Your task to perform on an android device: open app "Pandora - Music & Podcasts" (install if not already installed) and go to login screen Image 0: 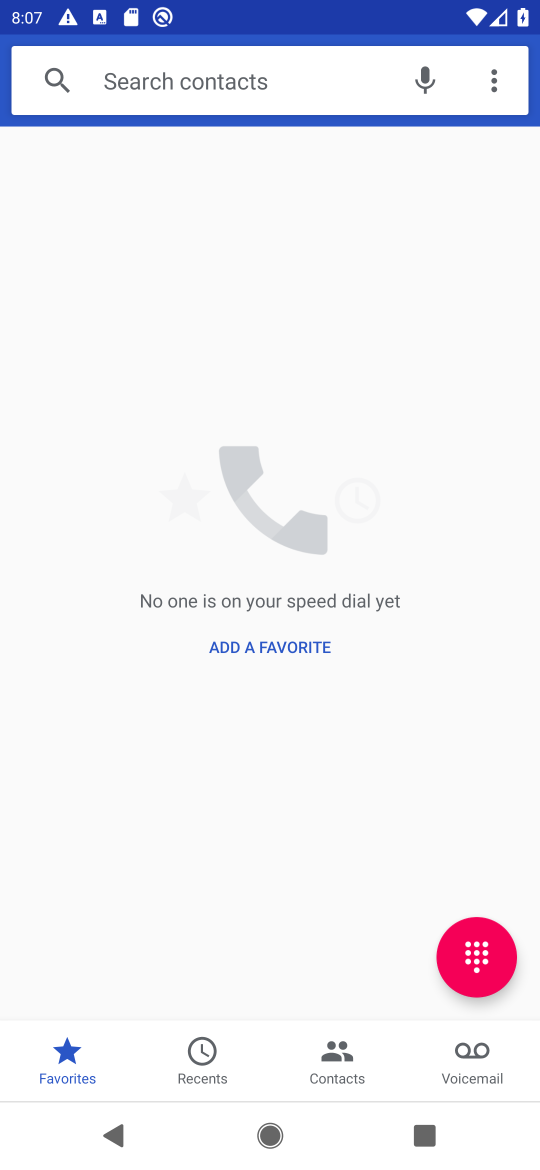
Step 0: press home button
Your task to perform on an android device: open app "Pandora - Music & Podcasts" (install if not already installed) and go to login screen Image 1: 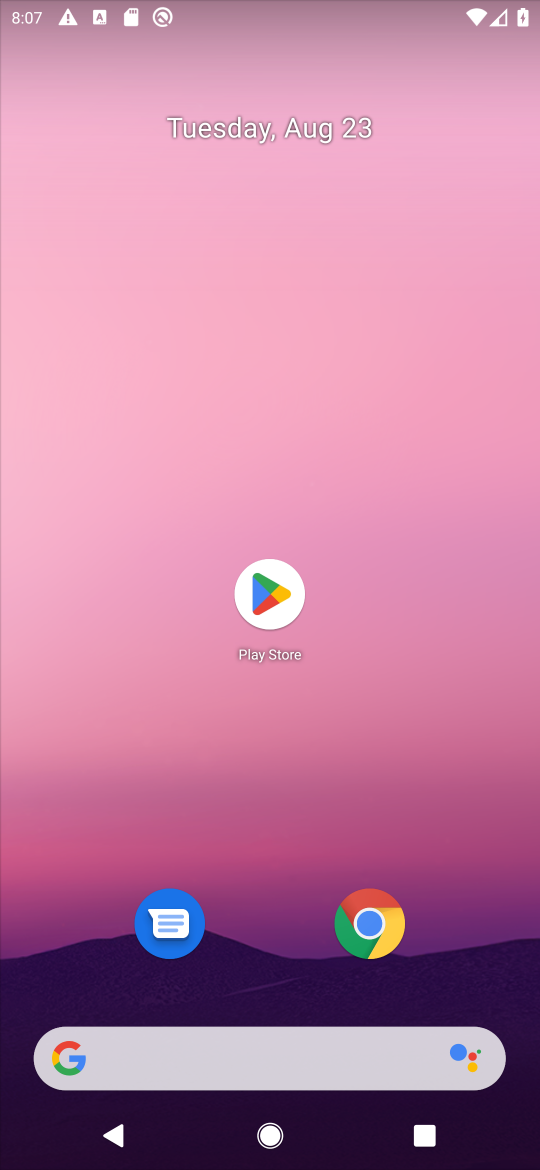
Step 1: click (271, 599)
Your task to perform on an android device: open app "Pandora - Music & Podcasts" (install if not already installed) and go to login screen Image 2: 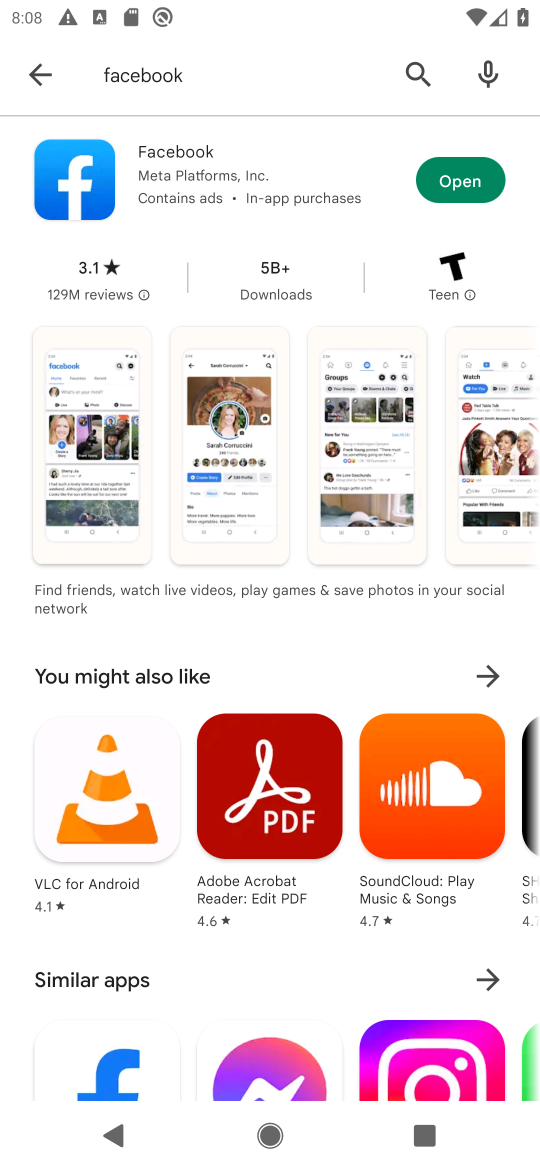
Step 2: click (409, 50)
Your task to perform on an android device: open app "Pandora - Music & Podcasts" (install if not already installed) and go to login screen Image 3: 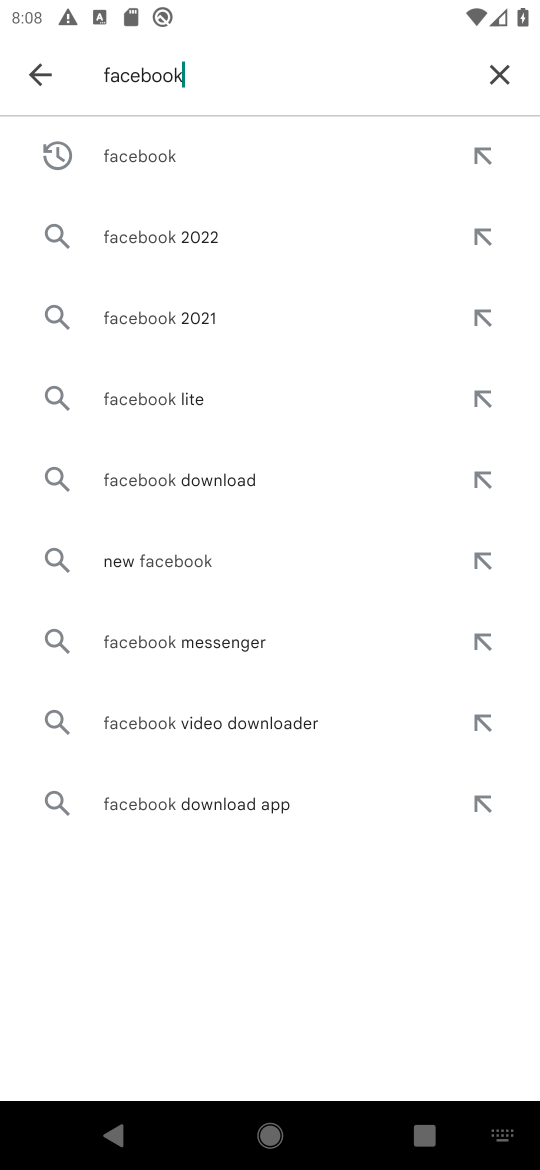
Step 3: click (502, 67)
Your task to perform on an android device: open app "Pandora - Music & Podcasts" (install if not already installed) and go to login screen Image 4: 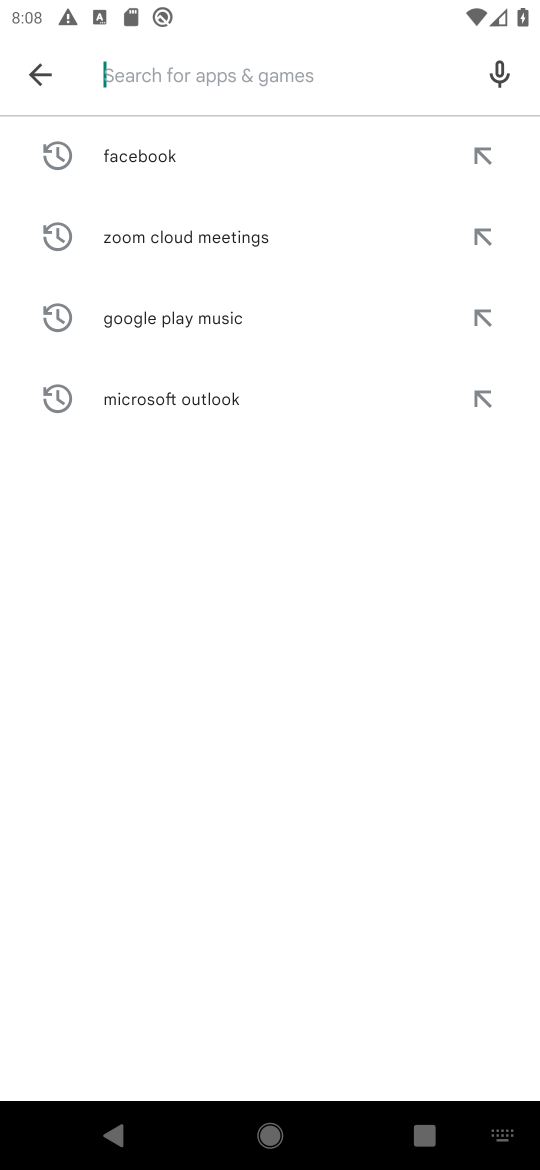
Step 4: type "Pandora - Music & Podcasts"
Your task to perform on an android device: open app "Pandora - Music & Podcasts" (install if not already installed) and go to login screen Image 5: 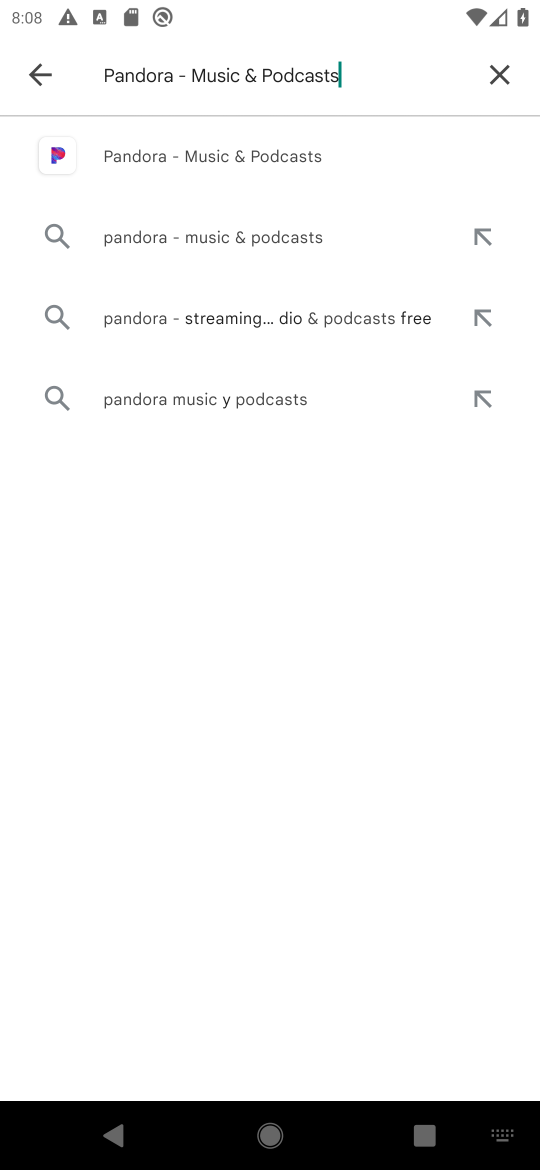
Step 5: click (204, 150)
Your task to perform on an android device: open app "Pandora - Music & Podcasts" (install if not already installed) and go to login screen Image 6: 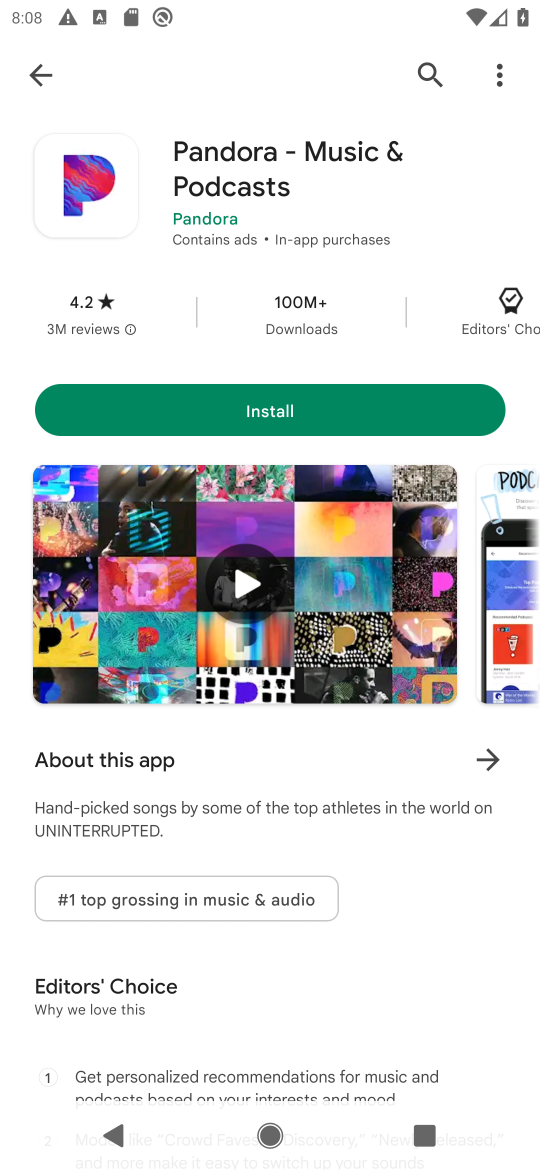
Step 6: click (297, 402)
Your task to perform on an android device: open app "Pandora - Music & Podcasts" (install if not already installed) and go to login screen Image 7: 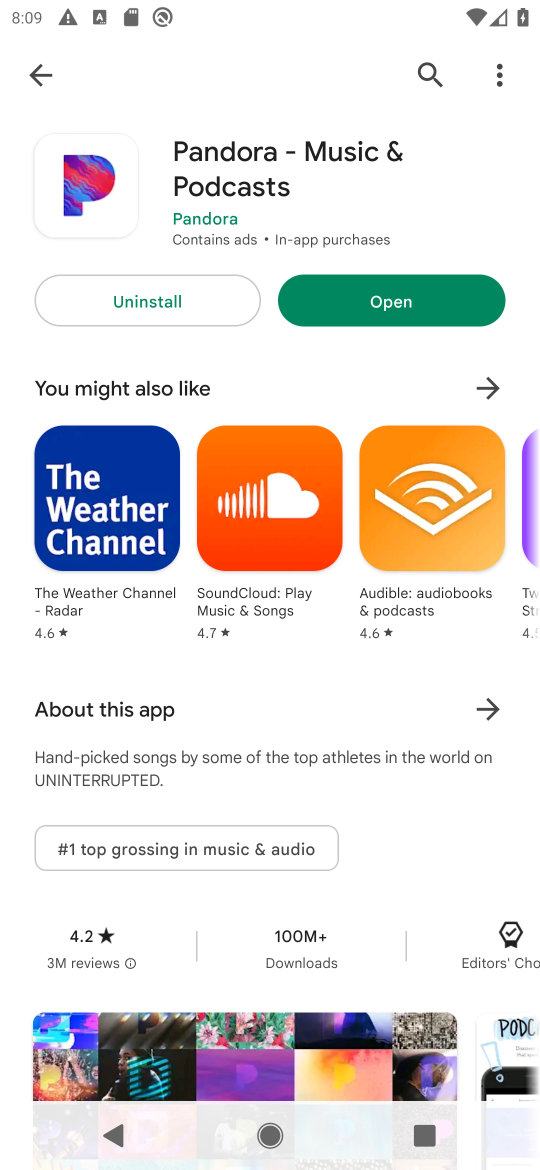
Step 7: click (415, 303)
Your task to perform on an android device: open app "Pandora - Music & Podcasts" (install if not already installed) and go to login screen Image 8: 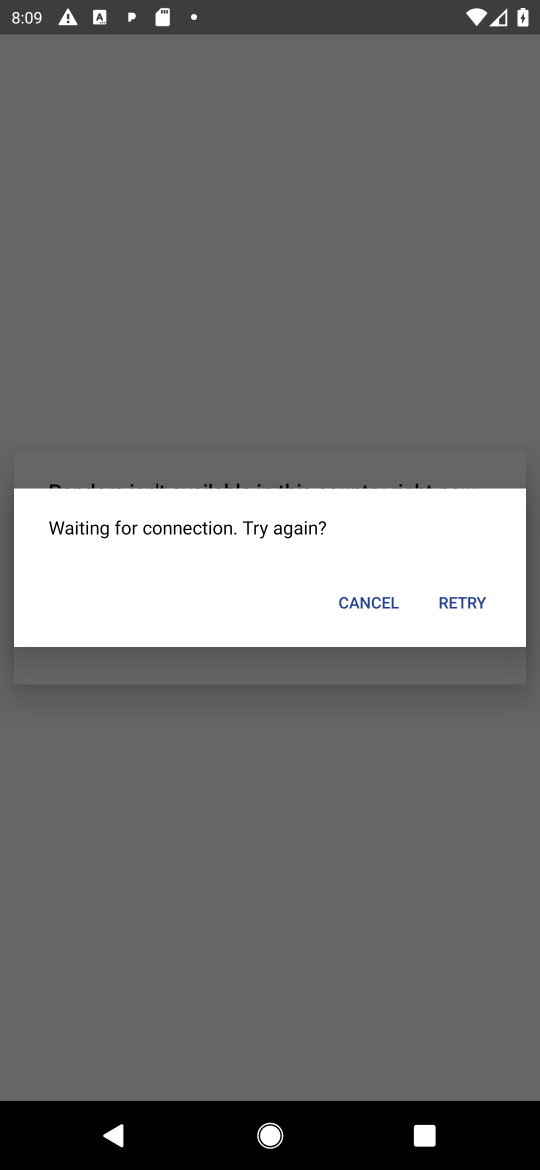
Step 8: task complete